Your task to perform on an android device: open app "DoorDash - Dasher" (install if not already installed) Image 0: 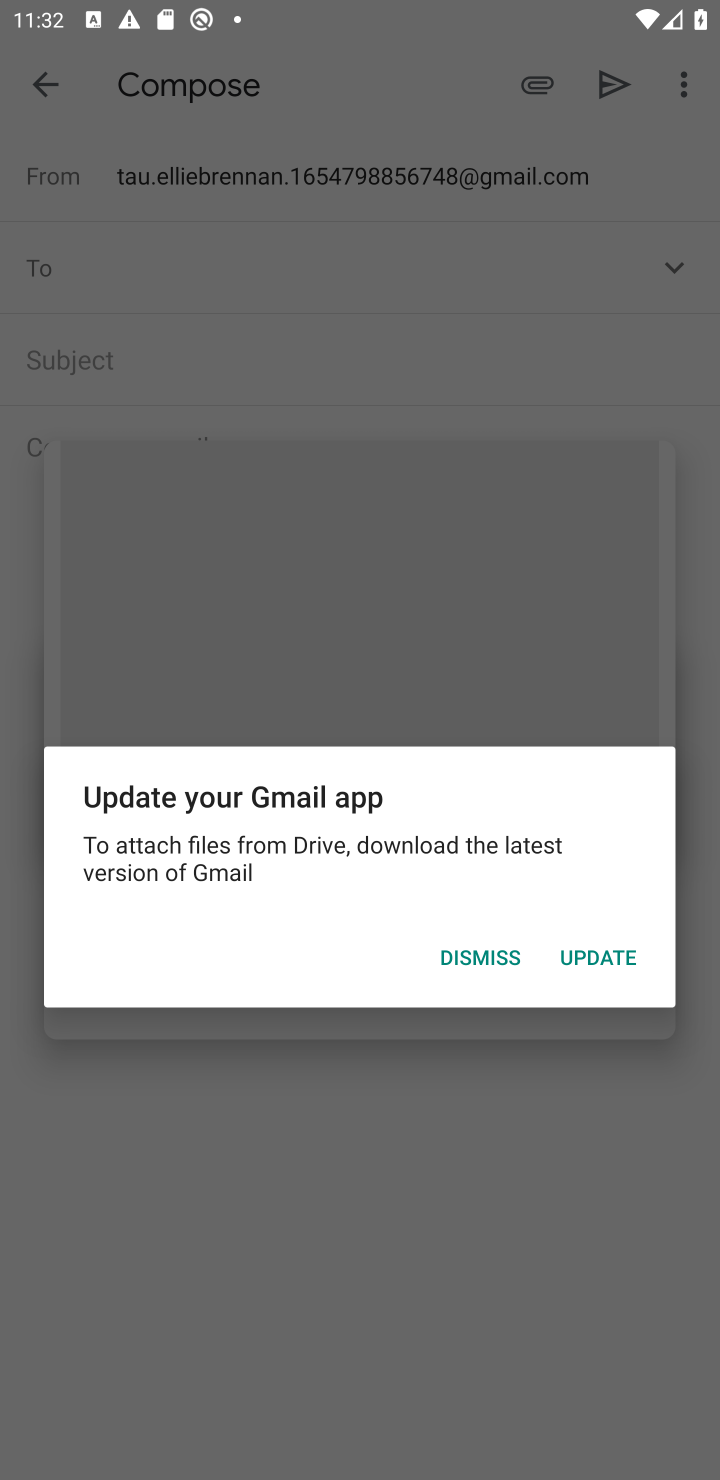
Step 0: press home button
Your task to perform on an android device: open app "DoorDash - Dasher" (install if not already installed) Image 1: 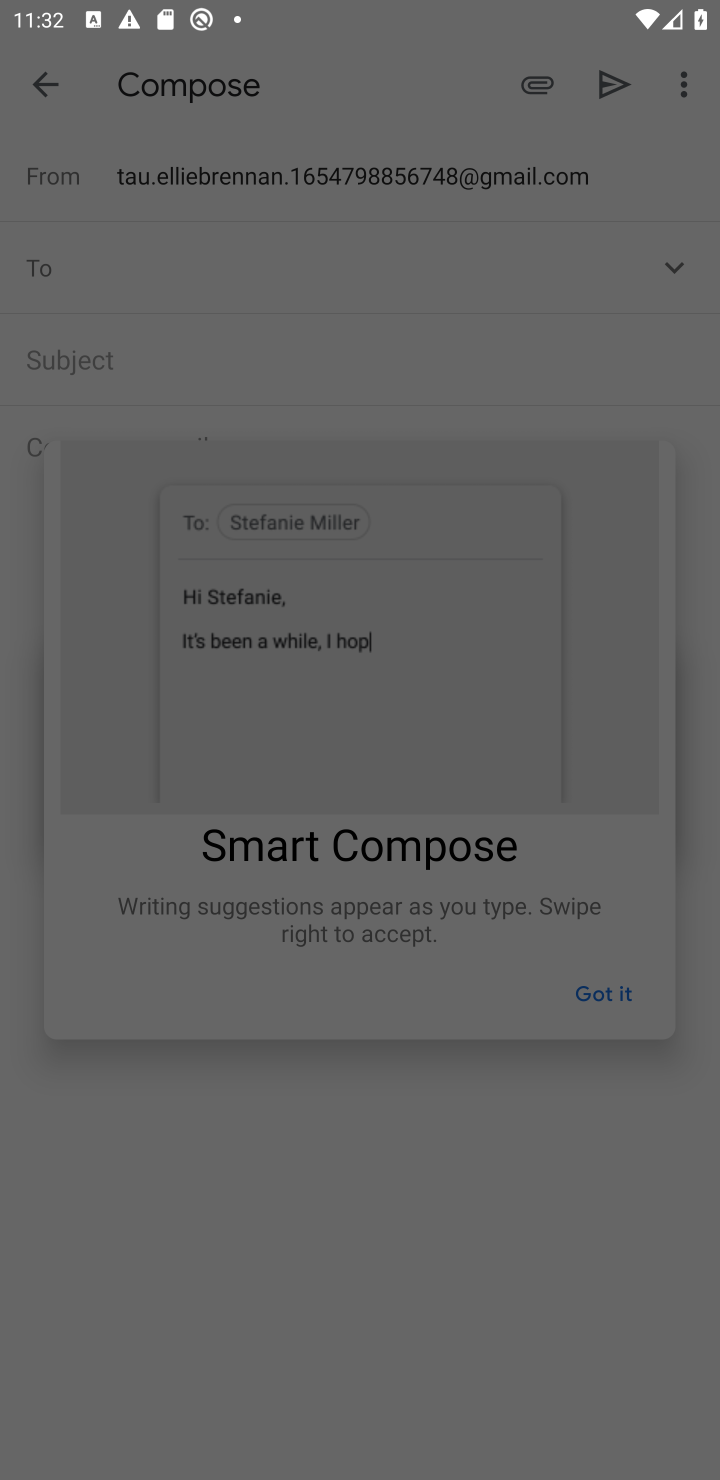
Step 1: press home button
Your task to perform on an android device: open app "DoorDash - Dasher" (install if not already installed) Image 2: 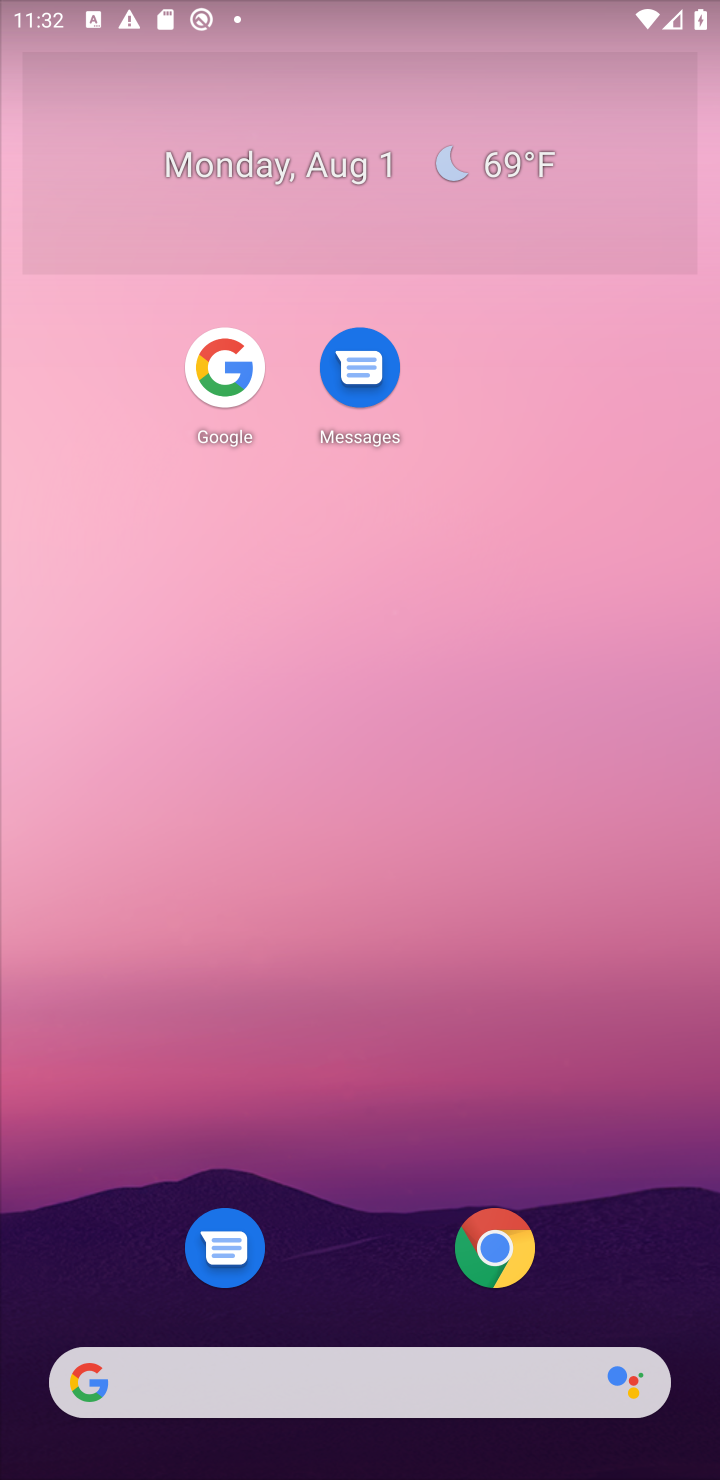
Step 2: drag from (612, 1029) to (646, 62)
Your task to perform on an android device: open app "DoorDash - Dasher" (install if not already installed) Image 3: 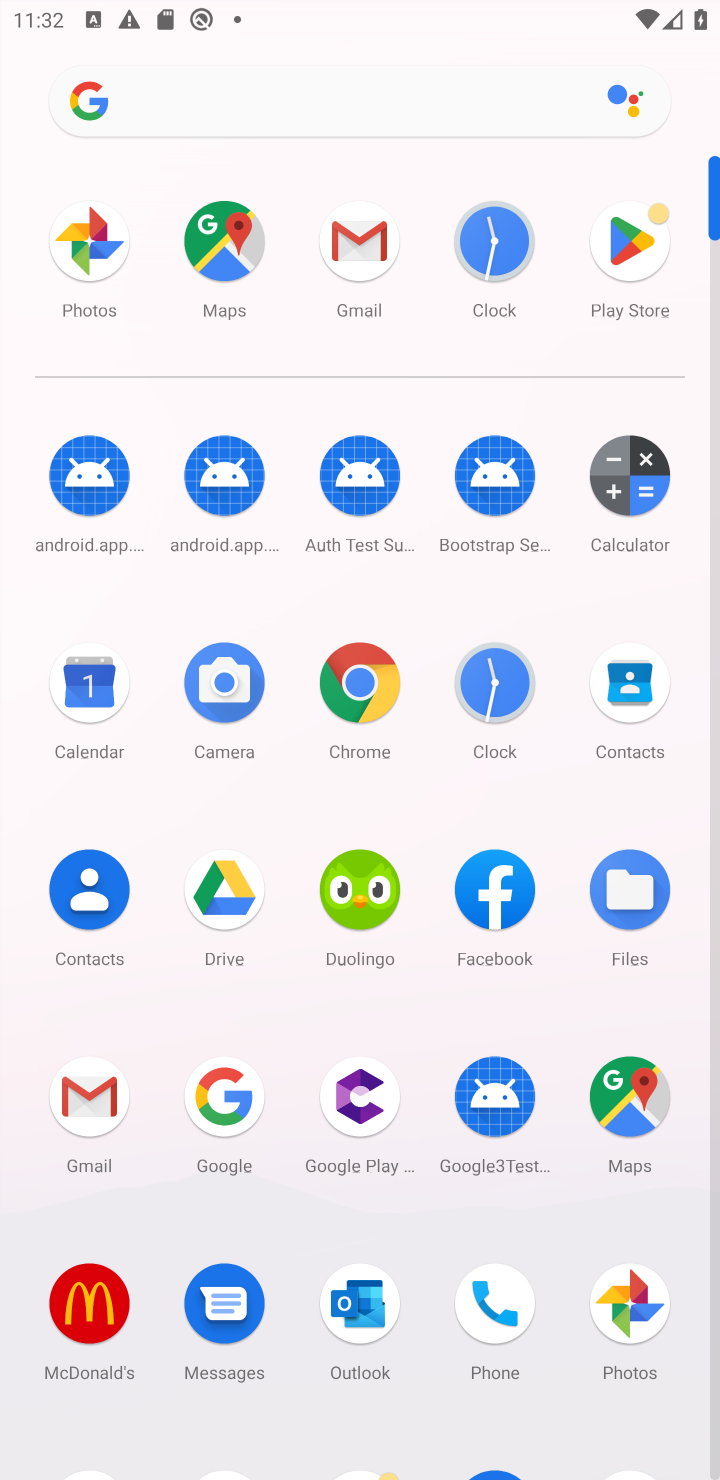
Step 3: drag from (289, 1141) to (272, 393)
Your task to perform on an android device: open app "DoorDash - Dasher" (install if not already installed) Image 4: 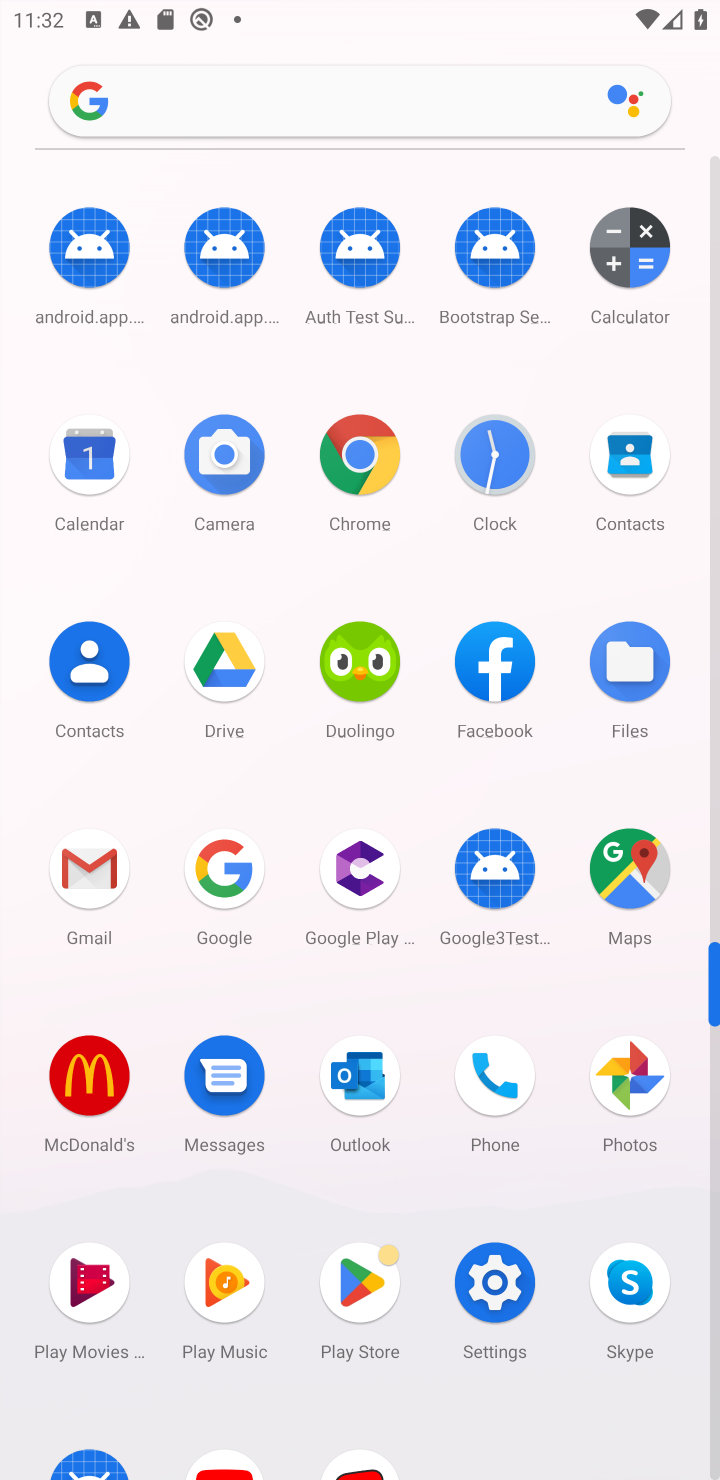
Step 4: click (374, 1280)
Your task to perform on an android device: open app "DoorDash - Dasher" (install if not already installed) Image 5: 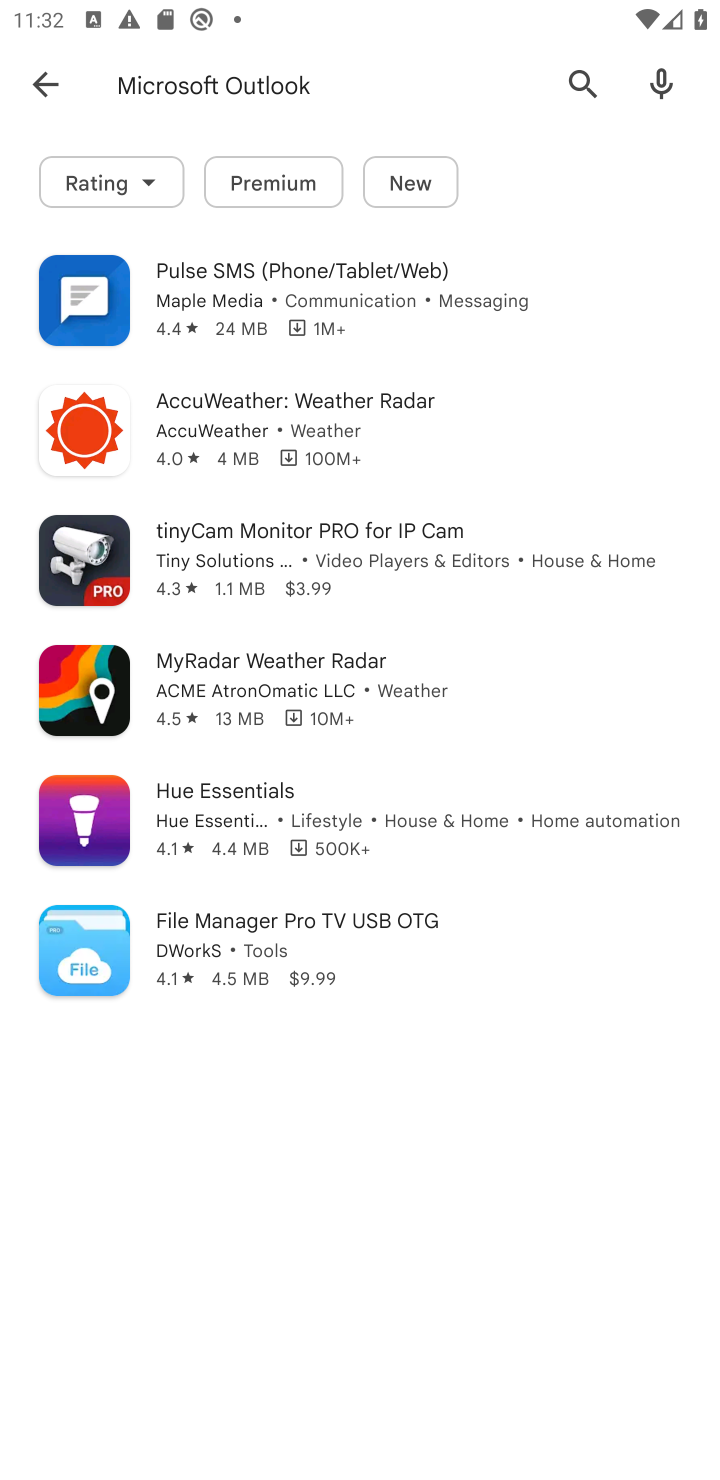
Step 5: click (419, 53)
Your task to perform on an android device: open app "DoorDash - Dasher" (install if not already installed) Image 6: 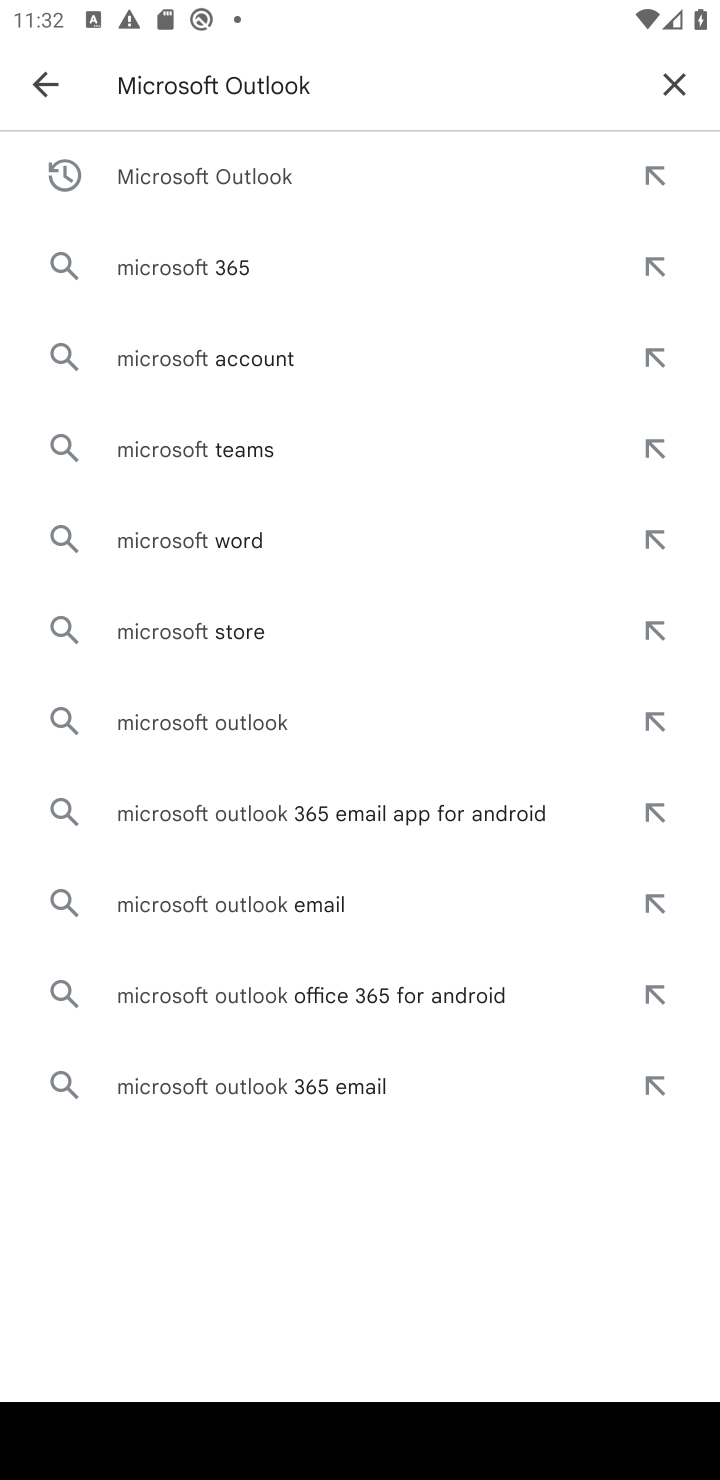
Step 6: click (677, 76)
Your task to perform on an android device: open app "DoorDash - Dasher" (install if not already installed) Image 7: 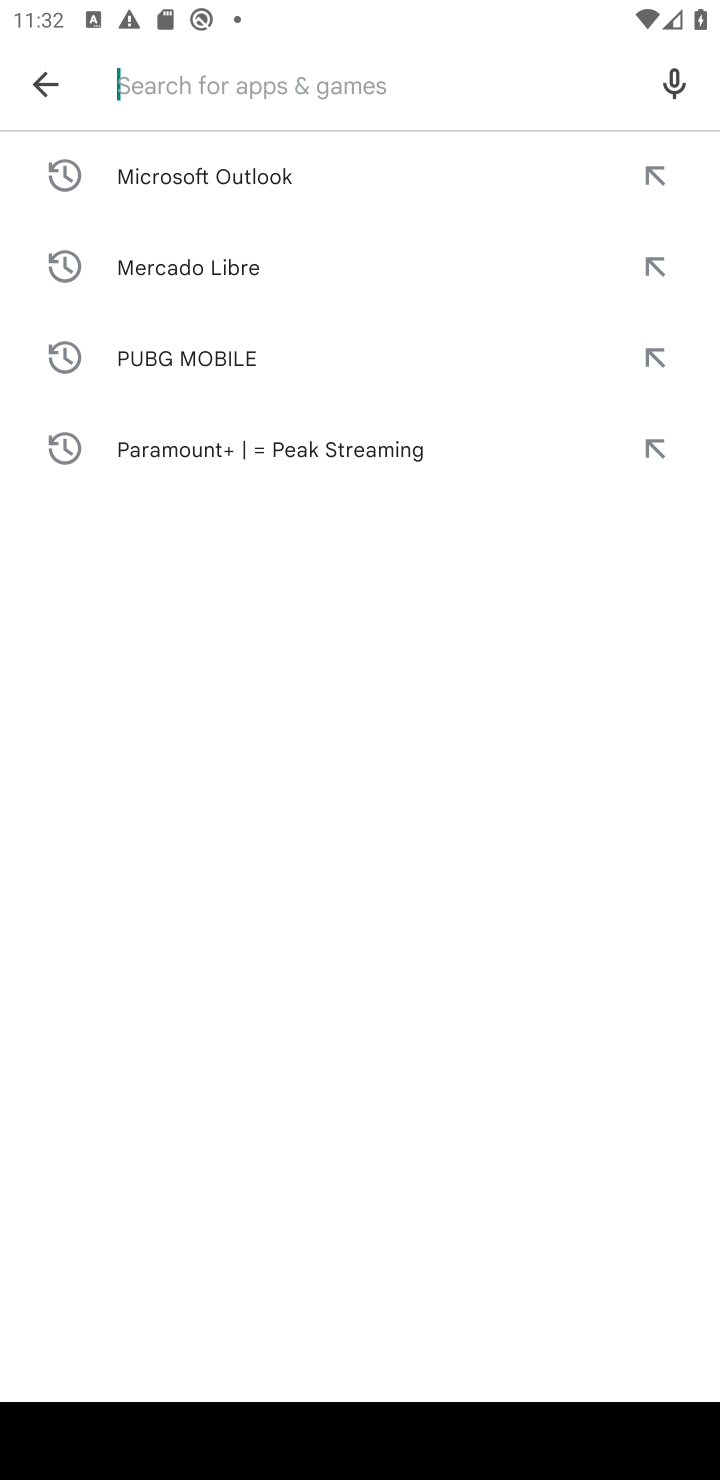
Step 7: type "DoorDash - Dasher"
Your task to perform on an android device: open app "DoorDash - Dasher" (install if not already installed) Image 8: 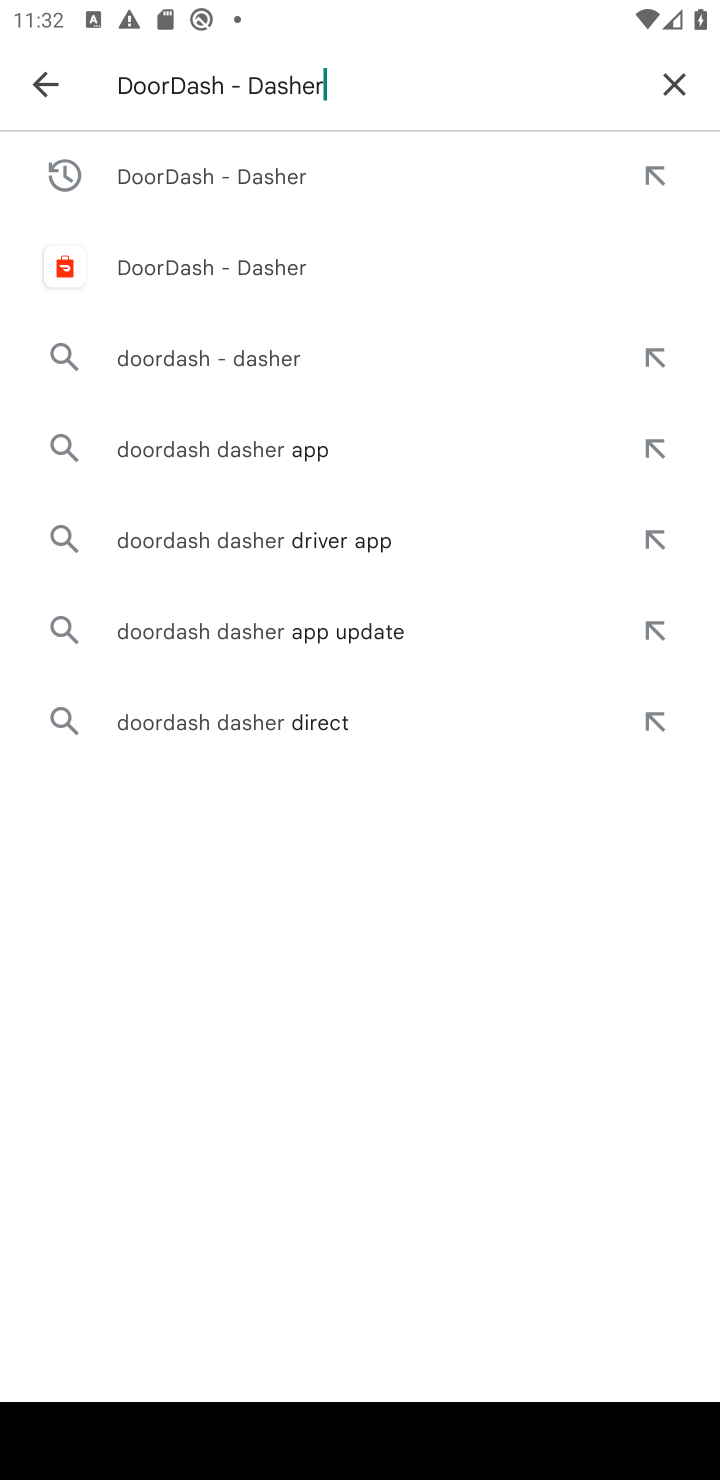
Step 8: press enter
Your task to perform on an android device: open app "DoorDash - Dasher" (install if not already installed) Image 9: 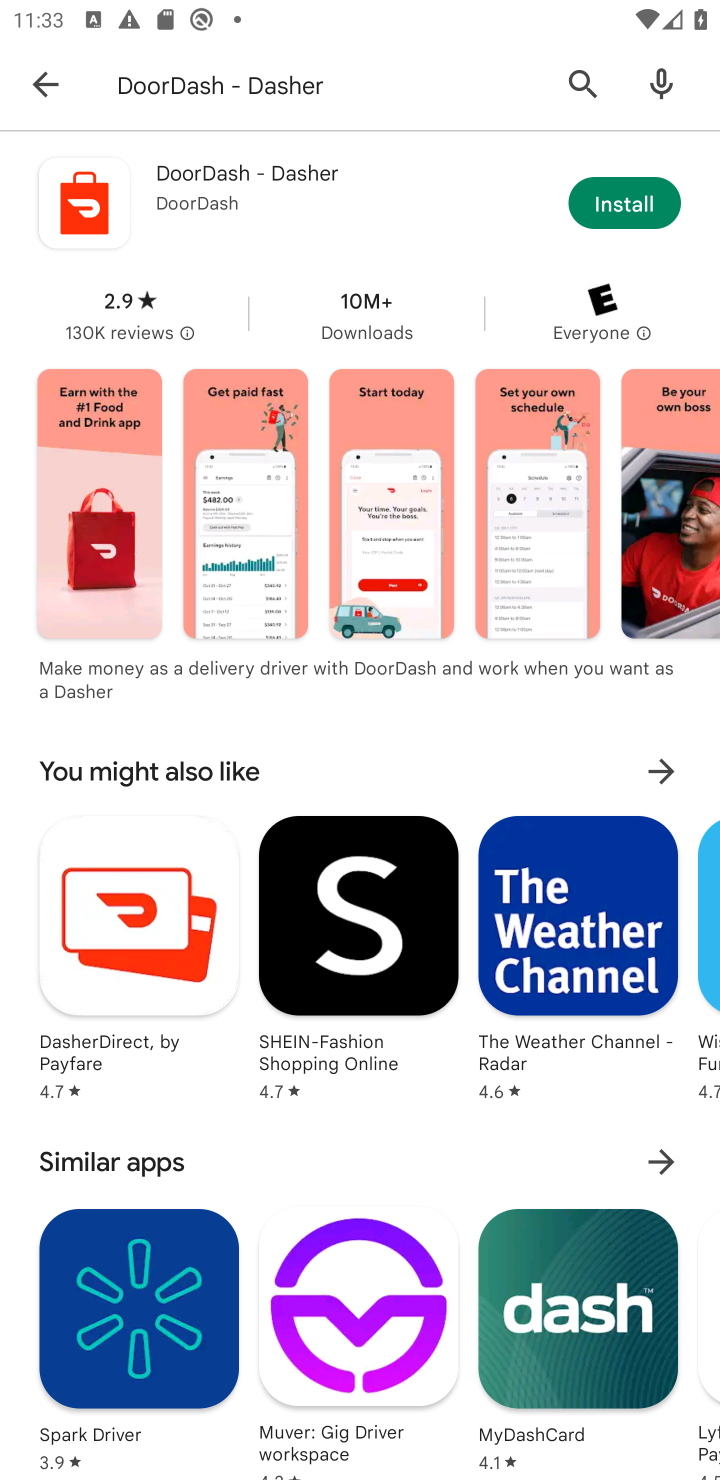
Step 9: click (652, 207)
Your task to perform on an android device: open app "DoorDash - Dasher" (install if not already installed) Image 10: 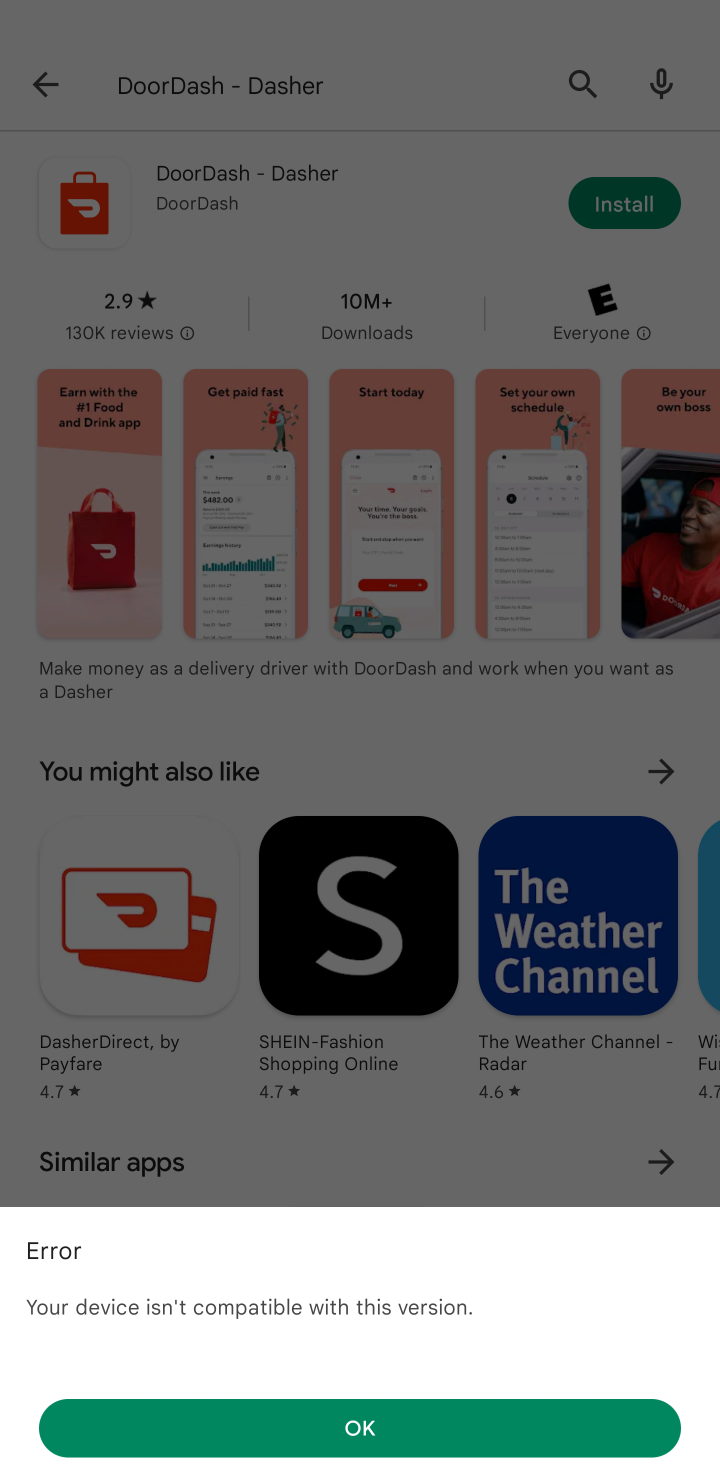
Step 10: click (559, 1451)
Your task to perform on an android device: open app "DoorDash - Dasher" (install if not already installed) Image 11: 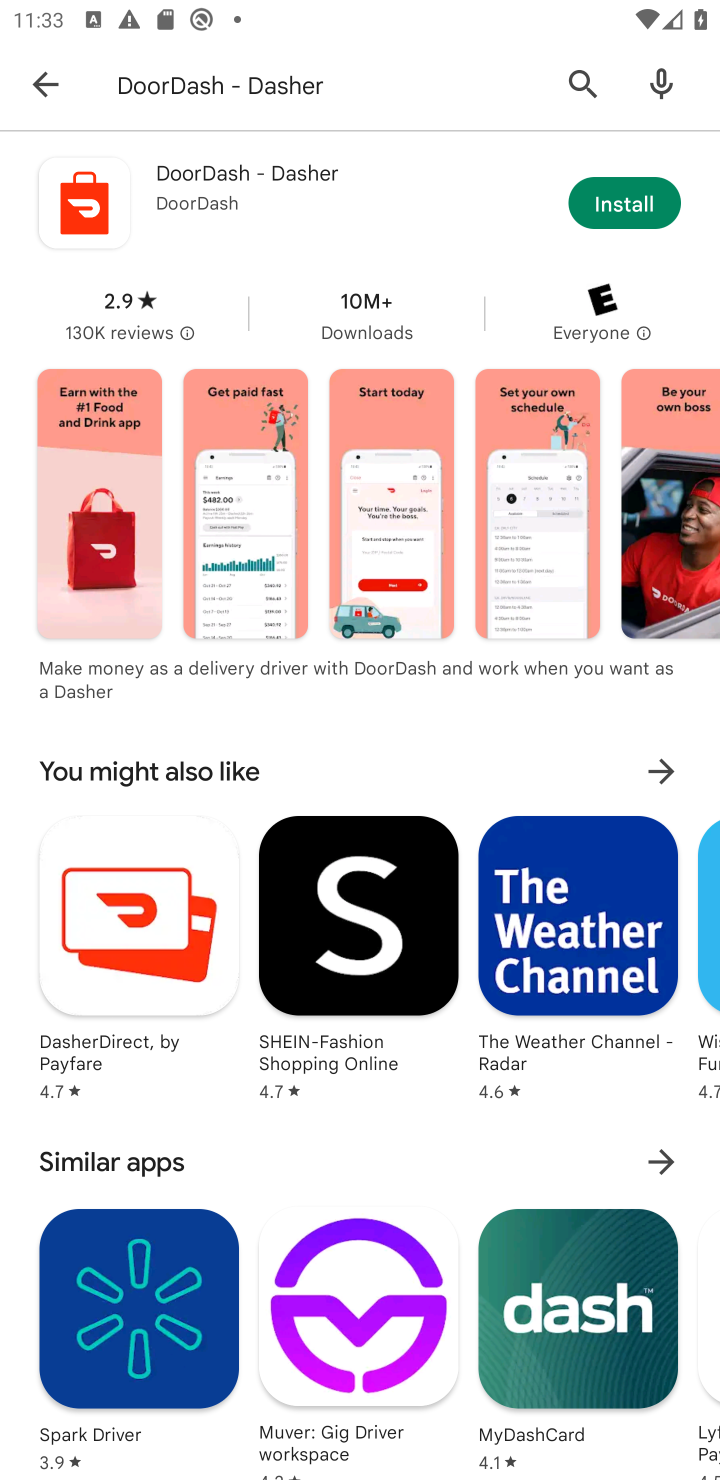
Step 11: click (635, 198)
Your task to perform on an android device: open app "DoorDash - Dasher" (install if not already installed) Image 12: 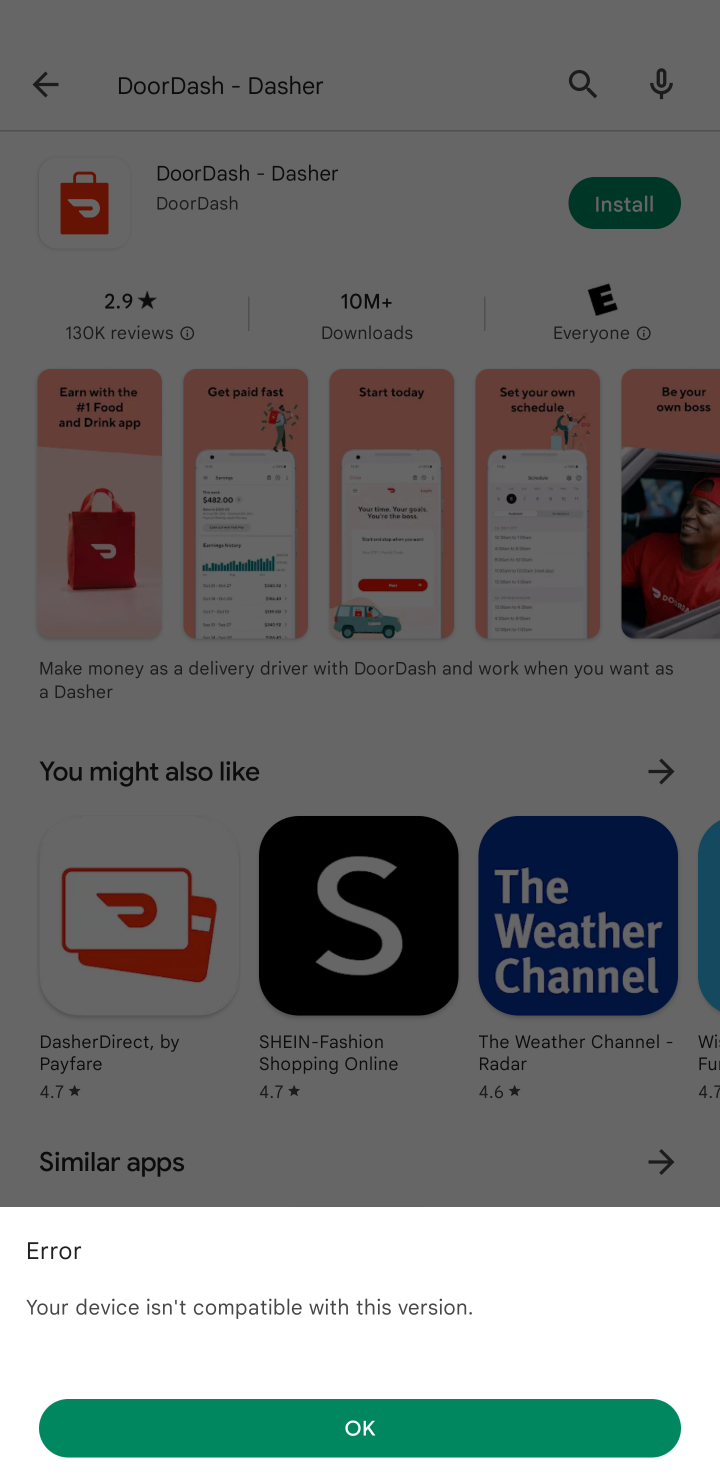
Step 12: task complete